Your task to perform on an android device: Open the stopwatch Image 0: 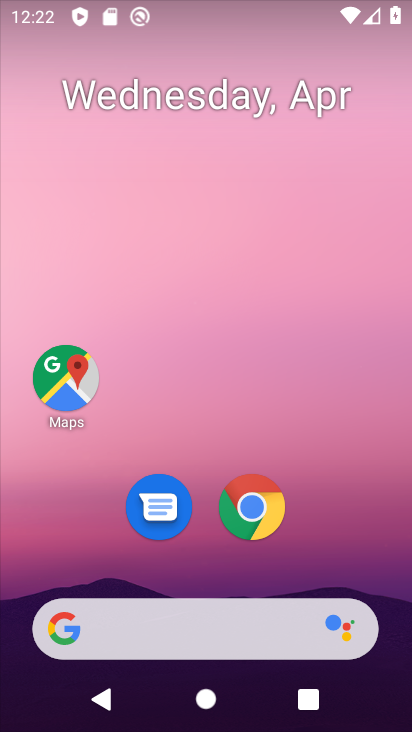
Step 0: drag from (203, 485) to (203, 131)
Your task to perform on an android device: Open the stopwatch Image 1: 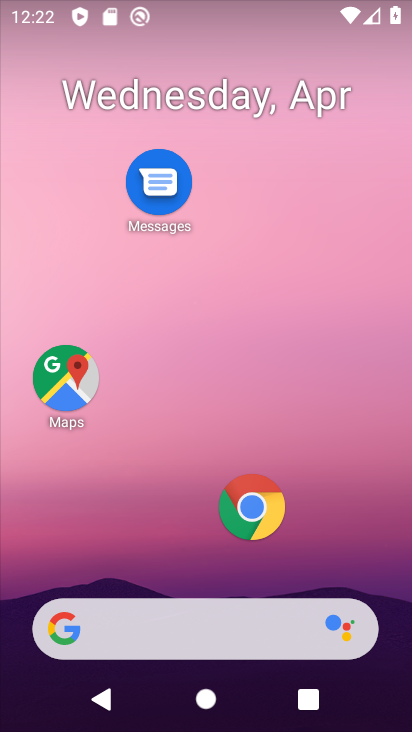
Step 1: drag from (200, 493) to (200, 103)
Your task to perform on an android device: Open the stopwatch Image 2: 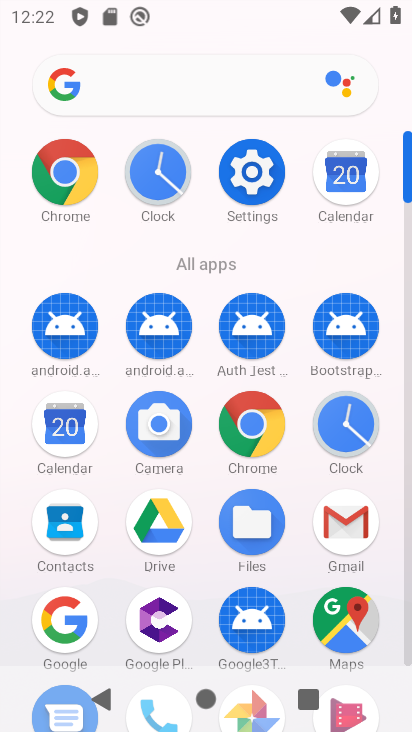
Step 2: click (157, 172)
Your task to perform on an android device: Open the stopwatch Image 3: 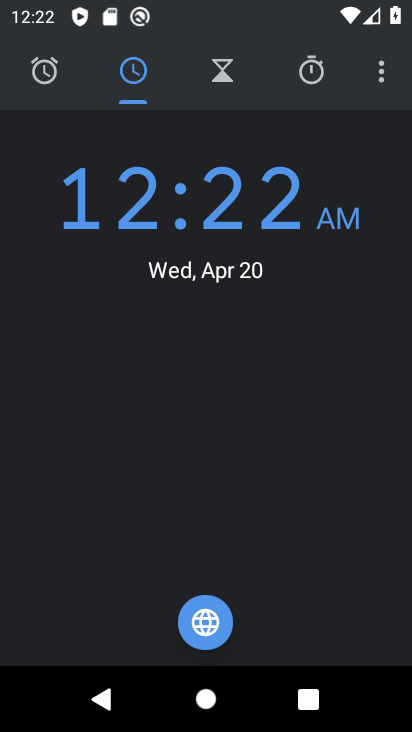
Step 3: click (321, 73)
Your task to perform on an android device: Open the stopwatch Image 4: 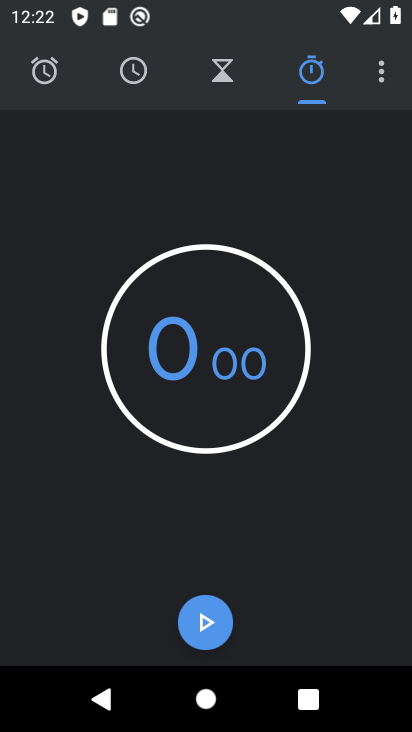
Step 4: task complete